Your task to perform on an android device: What is the news today? Image 0: 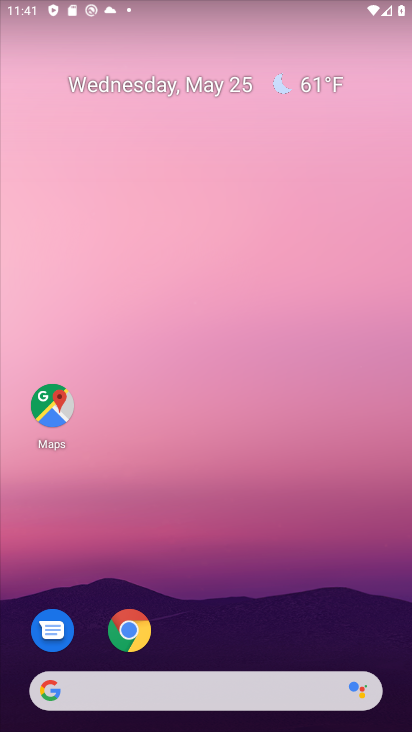
Step 0: drag from (22, 527) to (381, 482)
Your task to perform on an android device: What is the news today? Image 1: 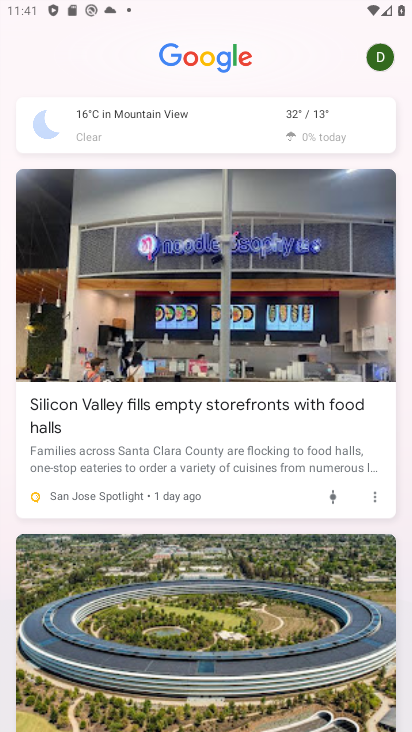
Step 1: task complete